Your task to perform on an android device: Open display settings Image 0: 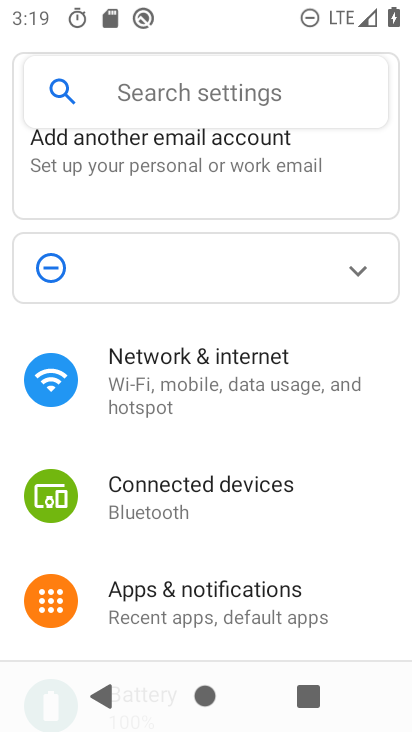
Step 0: drag from (298, 575) to (339, 22)
Your task to perform on an android device: Open display settings Image 1: 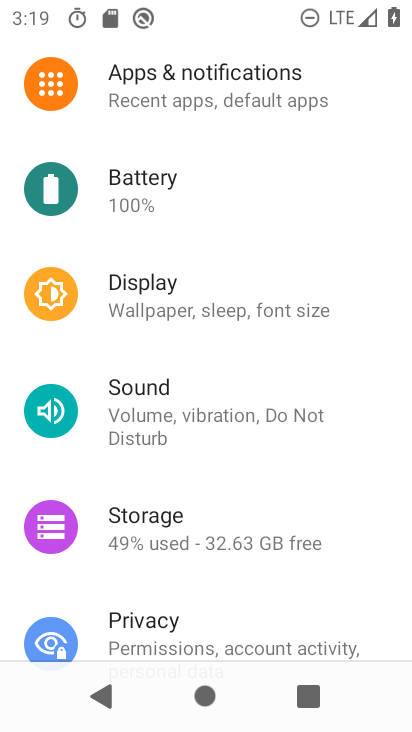
Step 1: click (155, 308)
Your task to perform on an android device: Open display settings Image 2: 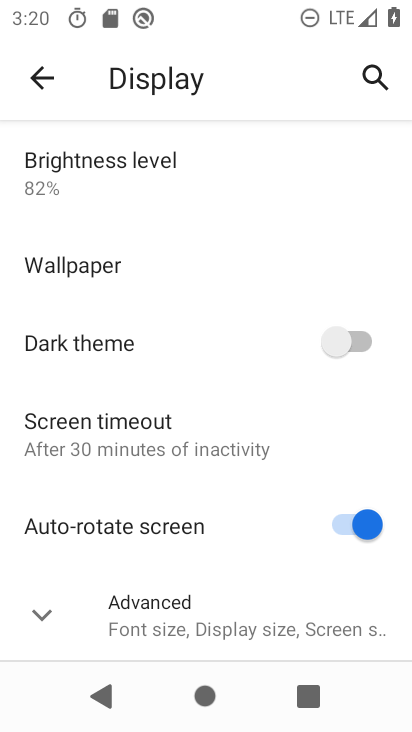
Step 2: task complete